Your task to perform on an android device: turn off data saver in the chrome app Image 0: 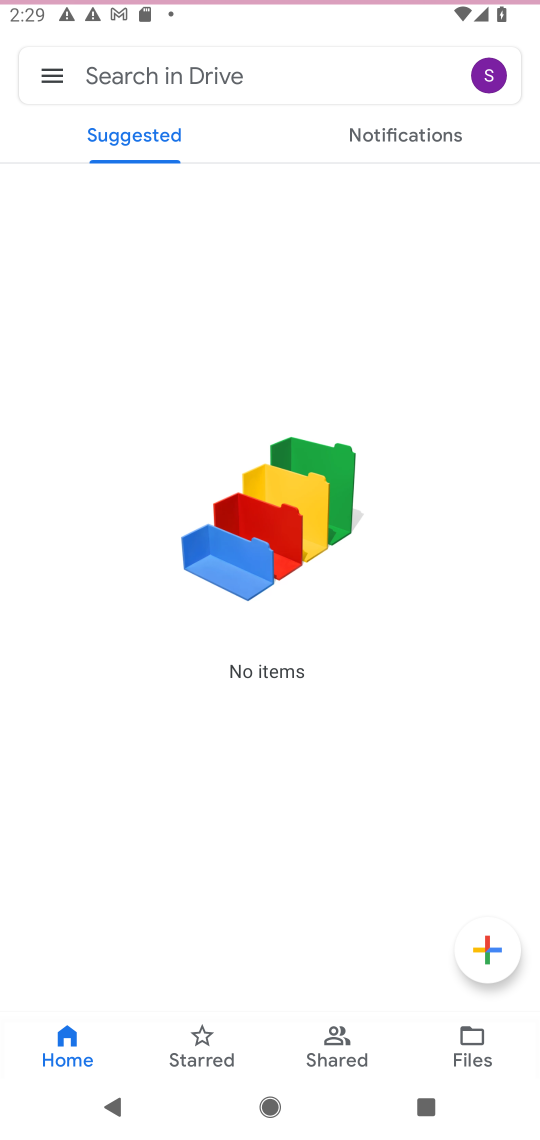
Step 0: press home button
Your task to perform on an android device: turn off data saver in the chrome app Image 1: 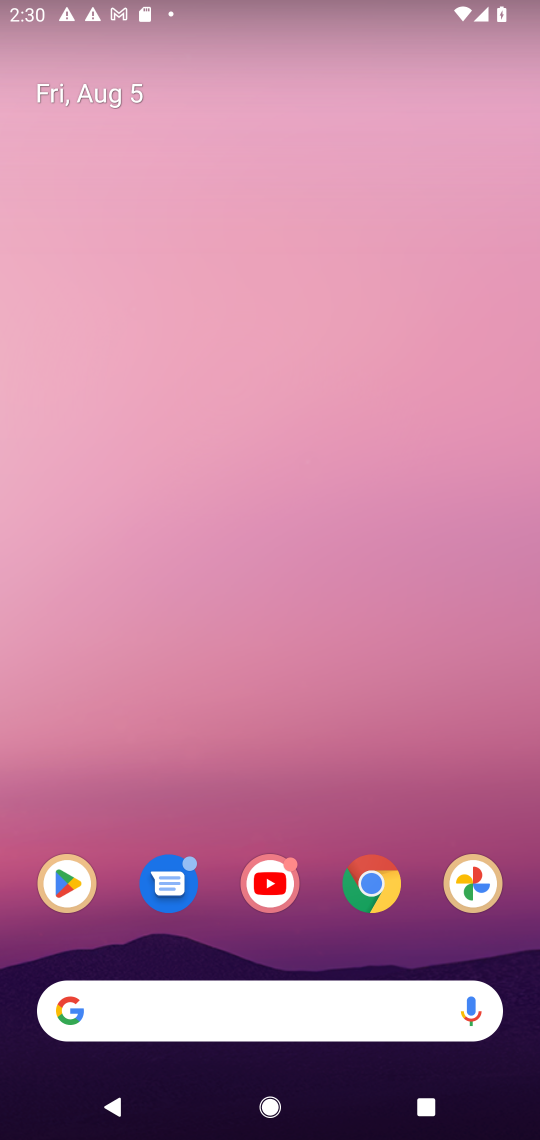
Step 1: click (369, 873)
Your task to perform on an android device: turn off data saver in the chrome app Image 2: 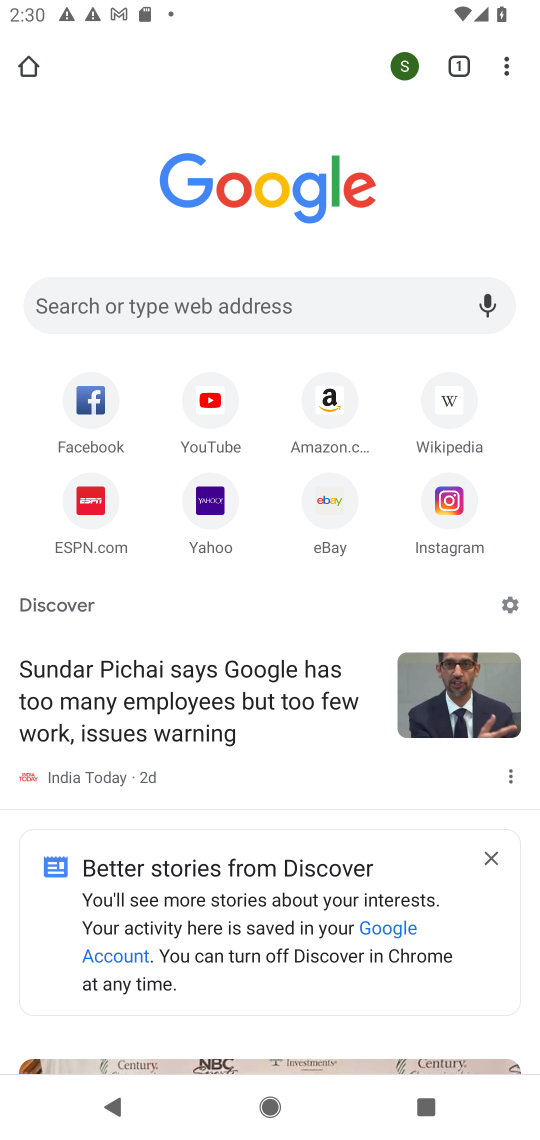
Step 2: click (506, 61)
Your task to perform on an android device: turn off data saver in the chrome app Image 3: 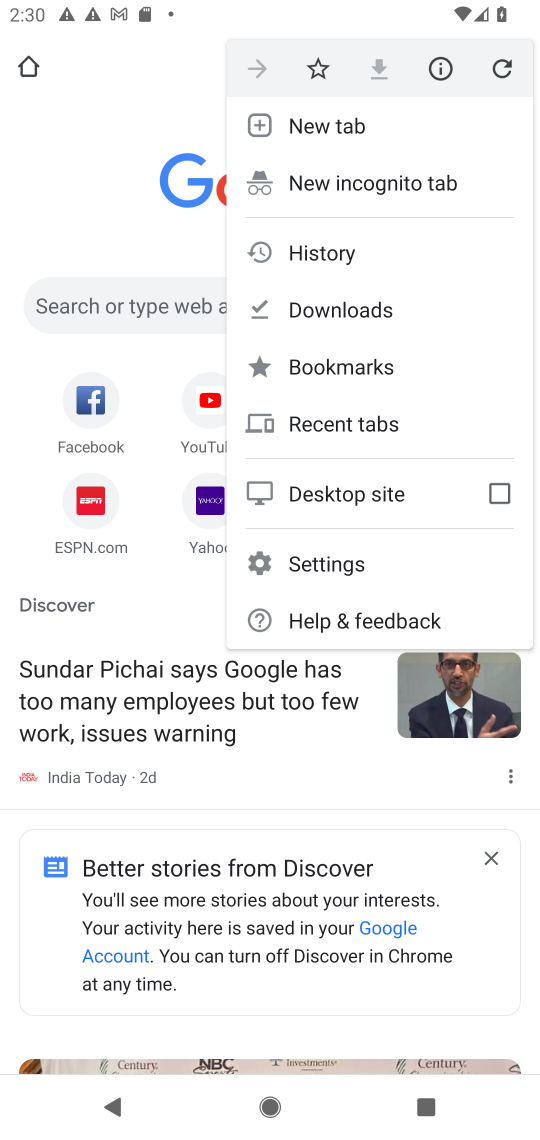
Step 3: click (374, 556)
Your task to perform on an android device: turn off data saver in the chrome app Image 4: 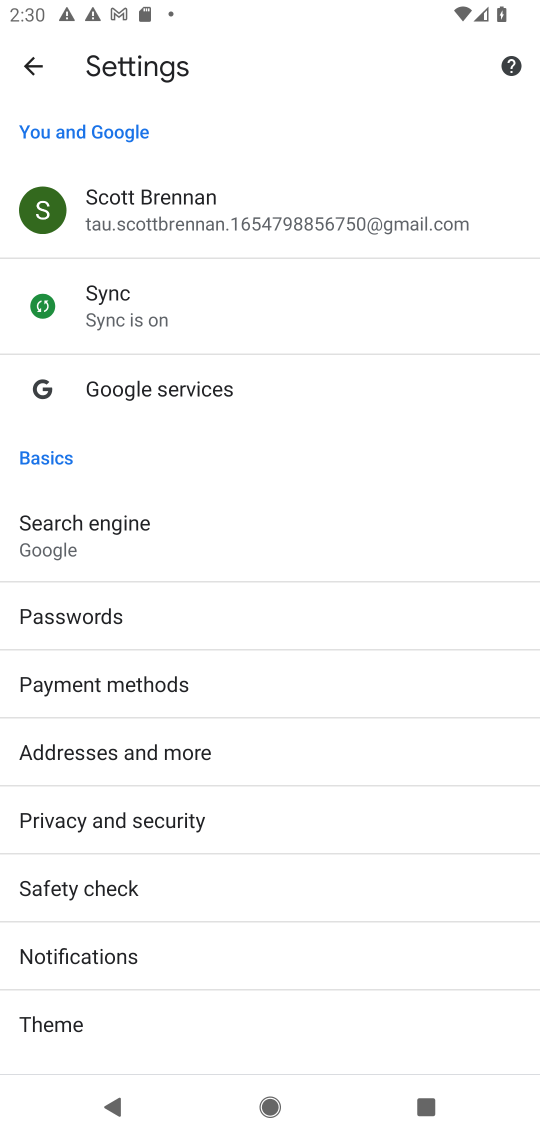
Step 4: drag from (248, 920) to (253, 420)
Your task to perform on an android device: turn off data saver in the chrome app Image 5: 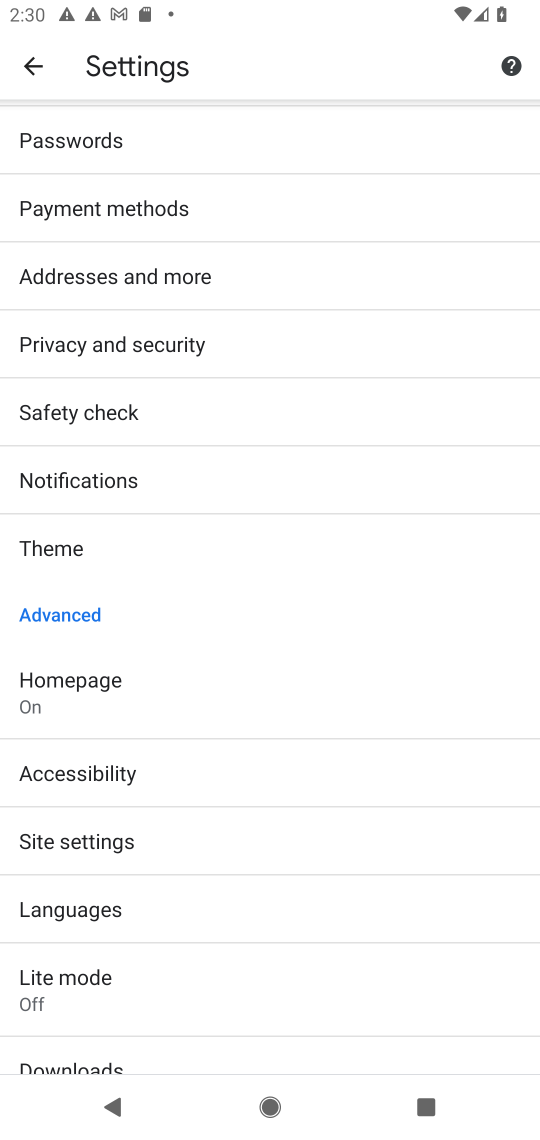
Step 5: click (106, 997)
Your task to perform on an android device: turn off data saver in the chrome app Image 6: 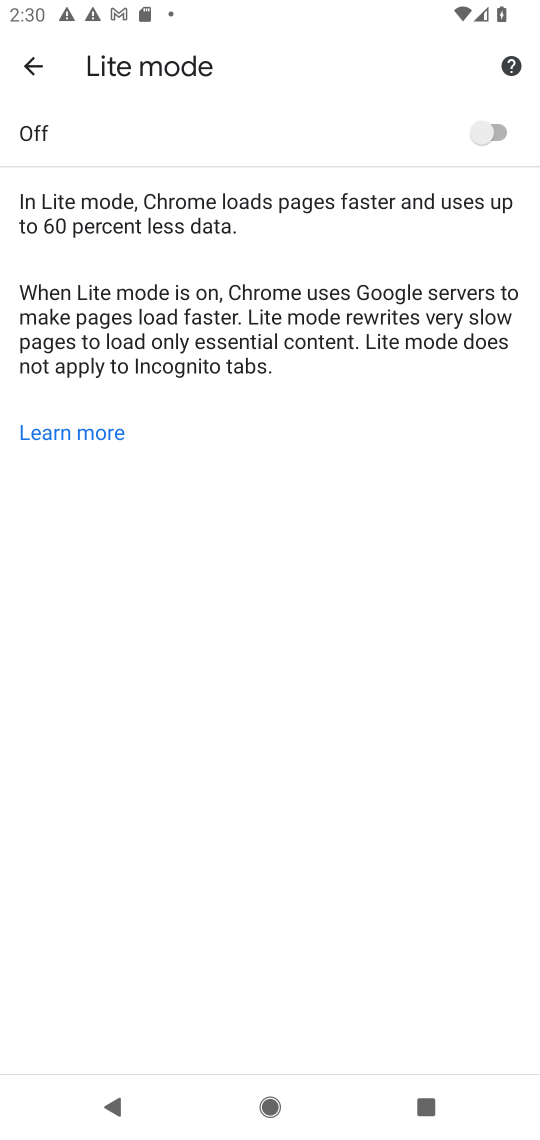
Step 6: task complete